Your task to perform on an android device: change the clock display to analog Image 0: 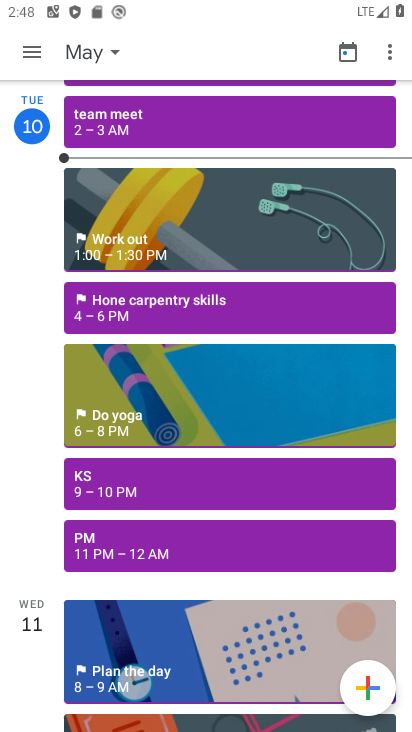
Step 0: press home button
Your task to perform on an android device: change the clock display to analog Image 1: 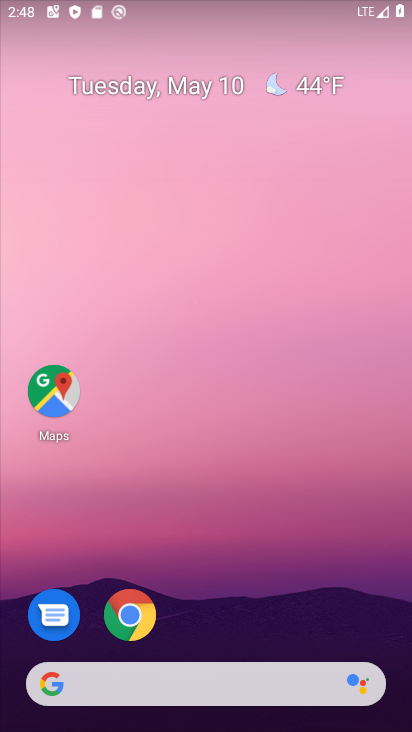
Step 1: drag from (242, 641) to (200, 91)
Your task to perform on an android device: change the clock display to analog Image 2: 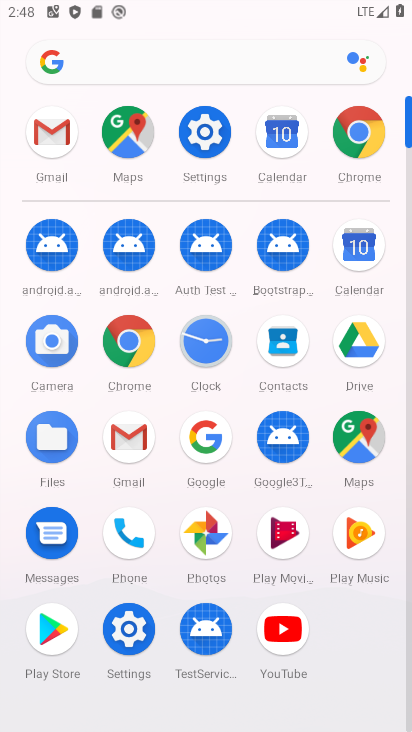
Step 2: click (207, 353)
Your task to perform on an android device: change the clock display to analog Image 3: 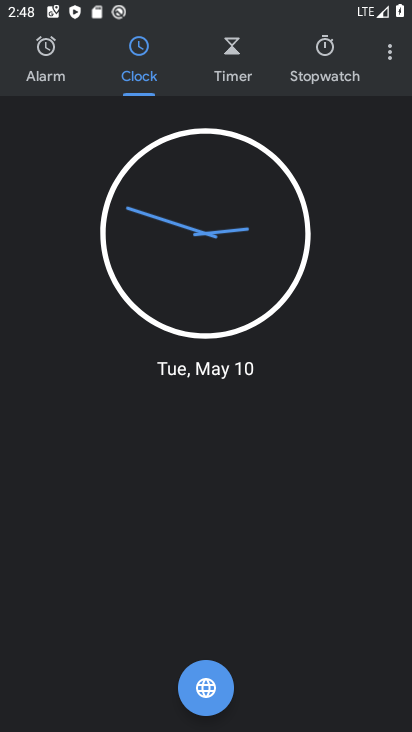
Step 3: click (388, 57)
Your task to perform on an android device: change the clock display to analog Image 4: 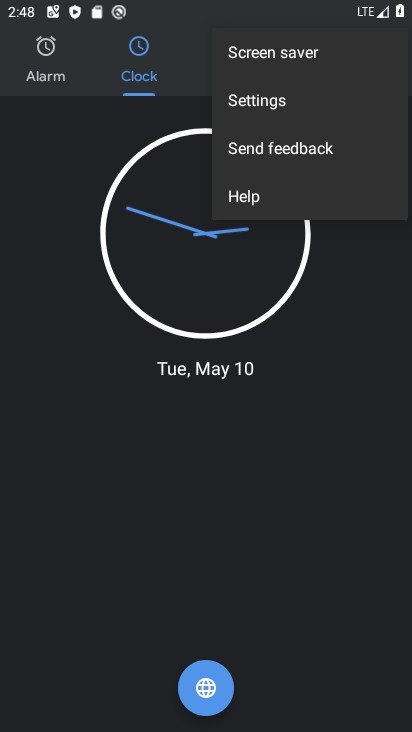
Step 4: click (332, 93)
Your task to perform on an android device: change the clock display to analog Image 5: 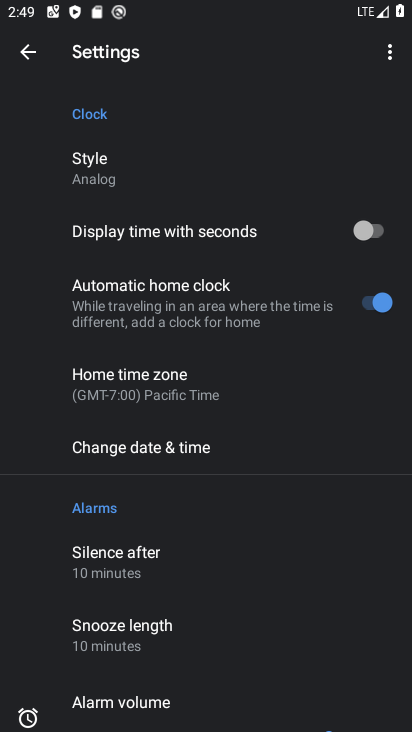
Step 5: click (119, 178)
Your task to perform on an android device: change the clock display to analog Image 6: 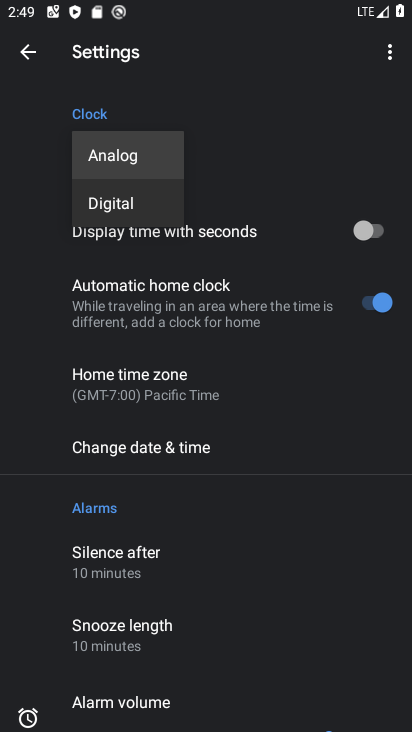
Step 6: click (95, 161)
Your task to perform on an android device: change the clock display to analog Image 7: 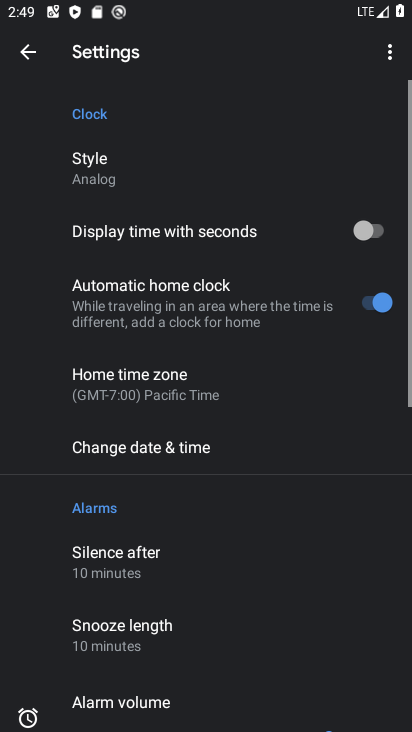
Step 7: task complete